Your task to perform on an android device: turn vacation reply on in the gmail app Image 0: 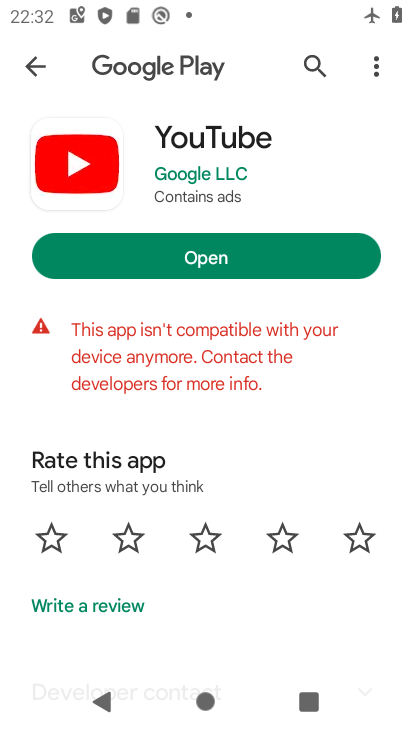
Step 0: press home button
Your task to perform on an android device: turn vacation reply on in the gmail app Image 1: 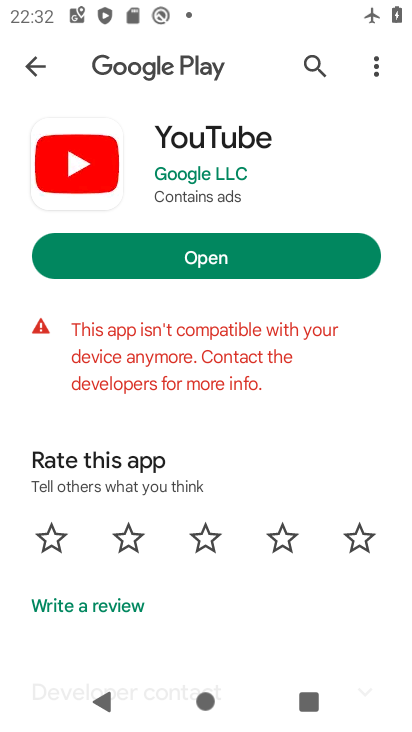
Step 1: press home button
Your task to perform on an android device: turn vacation reply on in the gmail app Image 2: 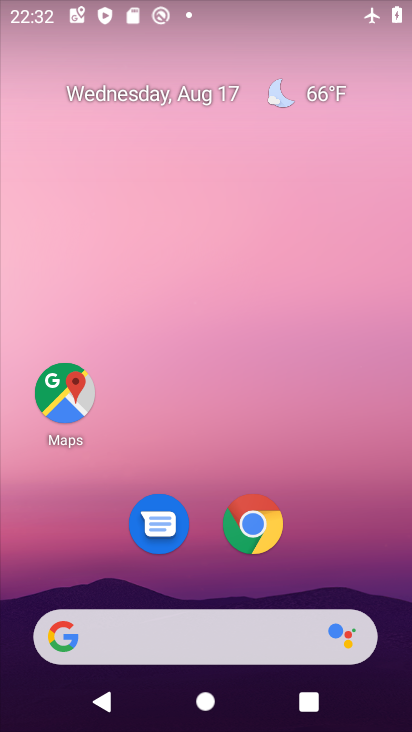
Step 2: drag from (327, 493) to (328, 4)
Your task to perform on an android device: turn vacation reply on in the gmail app Image 3: 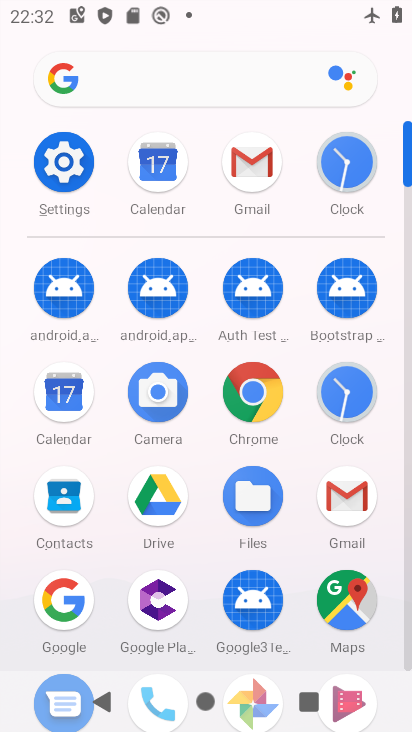
Step 3: click (256, 161)
Your task to perform on an android device: turn vacation reply on in the gmail app Image 4: 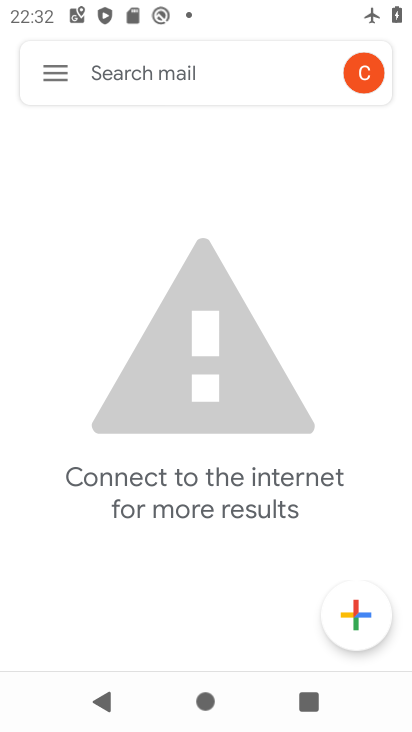
Step 4: click (54, 65)
Your task to perform on an android device: turn vacation reply on in the gmail app Image 5: 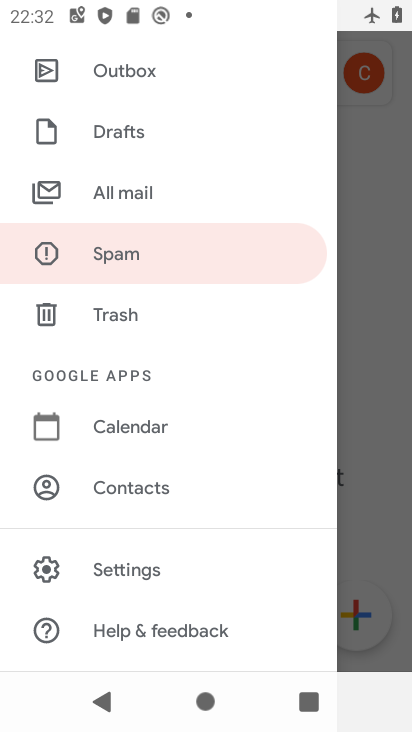
Step 5: click (124, 555)
Your task to perform on an android device: turn vacation reply on in the gmail app Image 6: 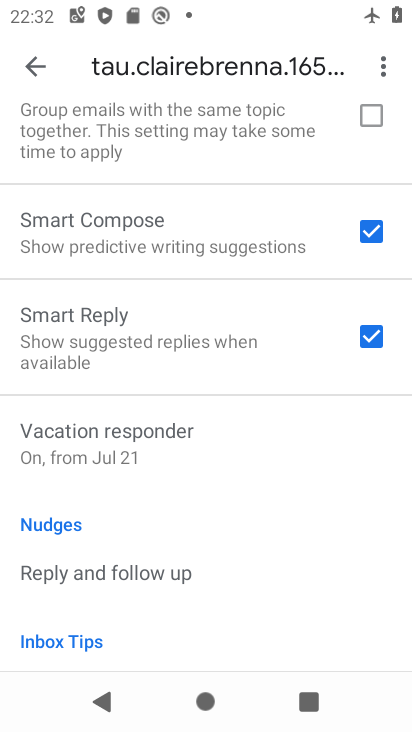
Step 6: click (223, 436)
Your task to perform on an android device: turn vacation reply on in the gmail app Image 7: 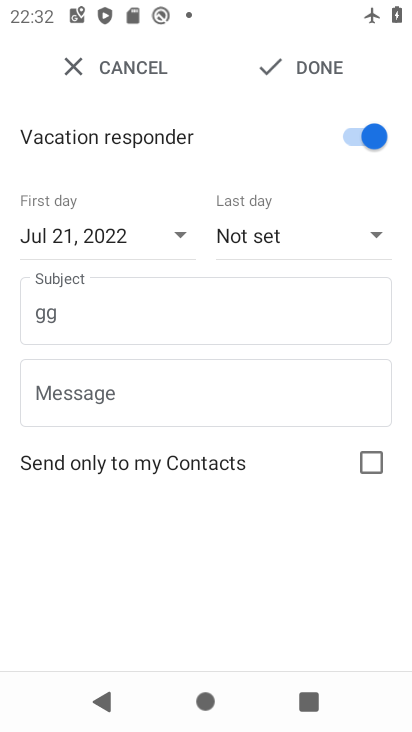
Step 7: task complete